Your task to perform on an android device: turn off location history Image 0: 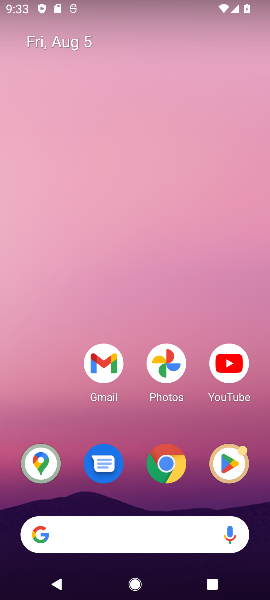
Step 0: drag from (127, 525) to (147, 54)
Your task to perform on an android device: turn off location history Image 1: 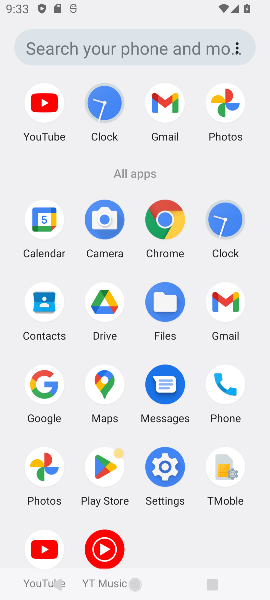
Step 1: drag from (192, 232) to (158, 23)
Your task to perform on an android device: turn off location history Image 2: 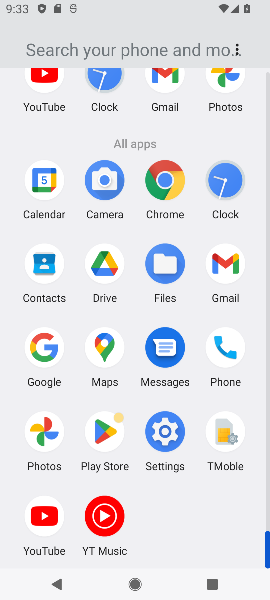
Step 2: drag from (162, 272) to (123, 6)
Your task to perform on an android device: turn off location history Image 3: 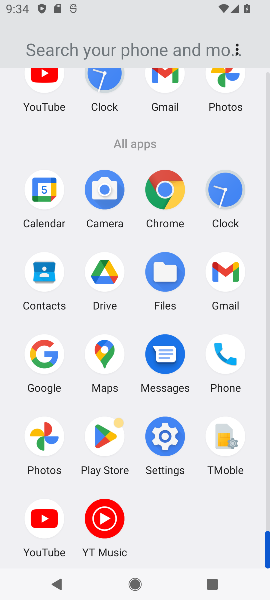
Step 3: click (164, 438)
Your task to perform on an android device: turn off location history Image 4: 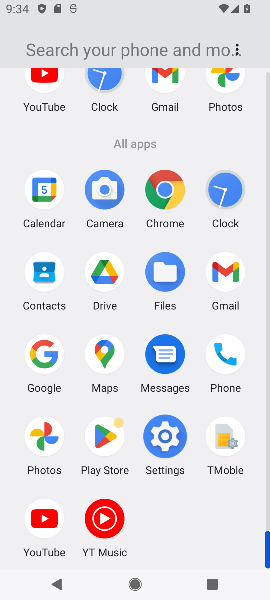
Step 4: click (164, 438)
Your task to perform on an android device: turn off location history Image 5: 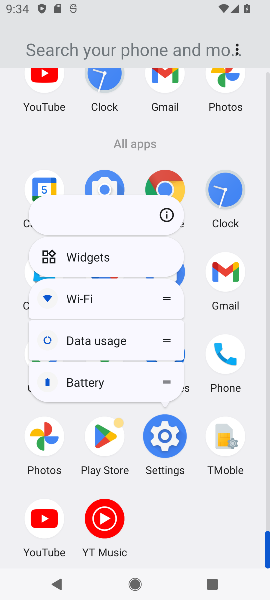
Step 5: click (164, 438)
Your task to perform on an android device: turn off location history Image 6: 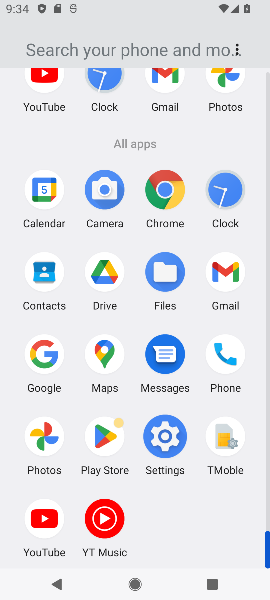
Step 6: click (167, 438)
Your task to perform on an android device: turn off location history Image 7: 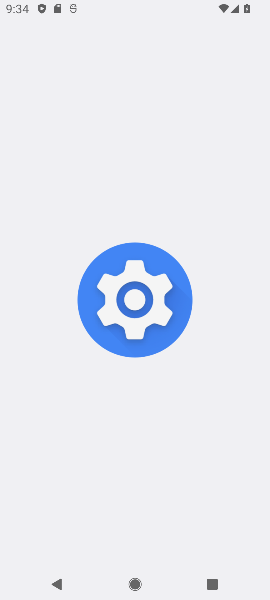
Step 7: click (169, 437)
Your task to perform on an android device: turn off location history Image 8: 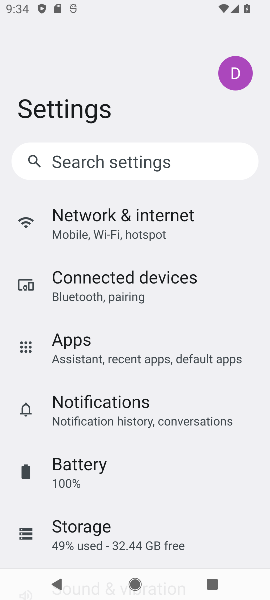
Step 8: click (111, 216)
Your task to perform on an android device: turn off location history Image 9: 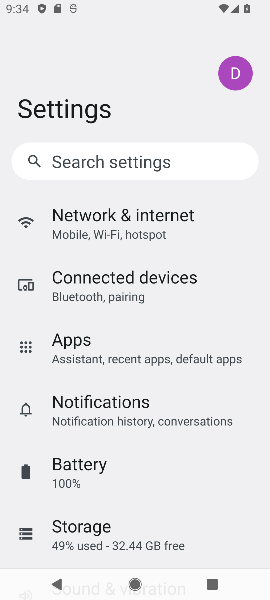
Step 9: drag from (124, 314) to (97, 220)
Your task to perform on an android device: turn off location history Image 10: 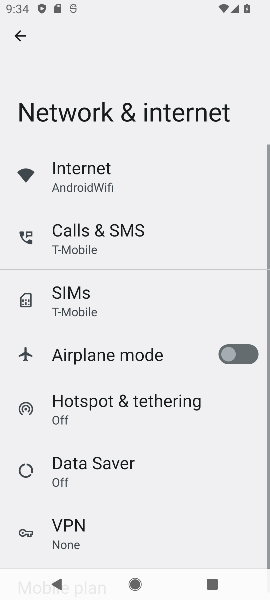
Step 10: click (19, 36)
Your task to perform on an android device: turn off location history Image 11: 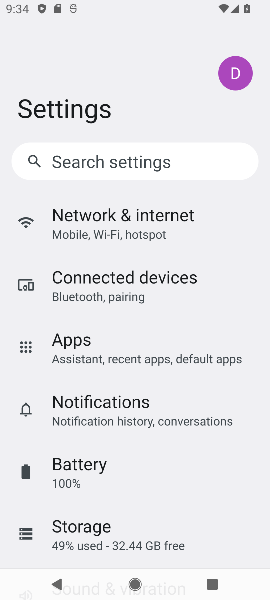
Step 11: drag from (176, 484) to (76, 117)
Your task to perform on an android device: turn off location history Image 12: 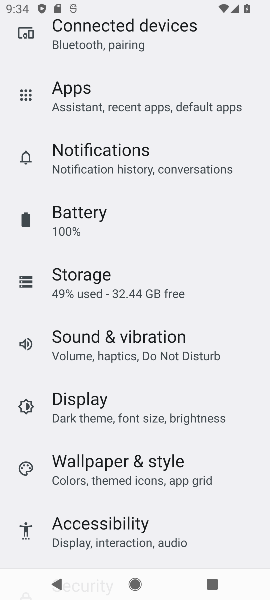
Step 12: drag from (118, 436) to (60, 140)
Your task to perform on an android device: turn off location history Image 13: 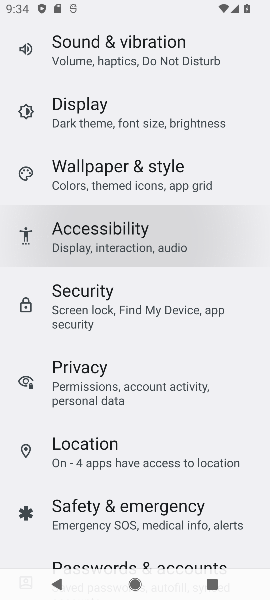
Step 13: drag from (124, 482) to (84, 259)
Your task to perform on an android device: turn off location history Image 14: 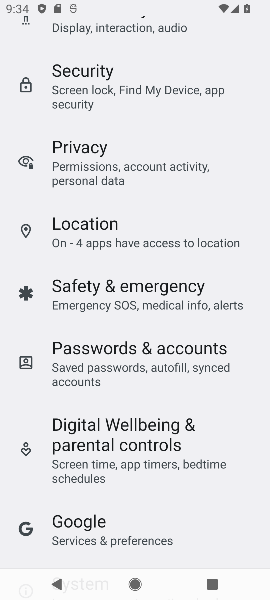
Step 14: click (81, 233)
Your task to perform on an android device: turn off location history Image 15: 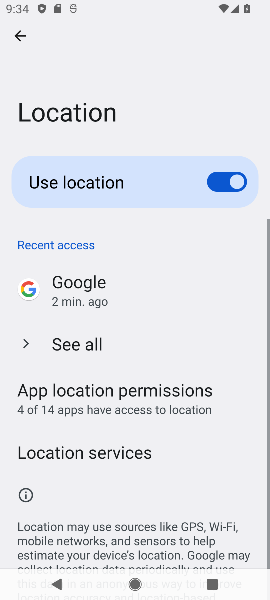
Step 15: click (81, 233)
Your task to perform on an android device: turn off location history Image 16: 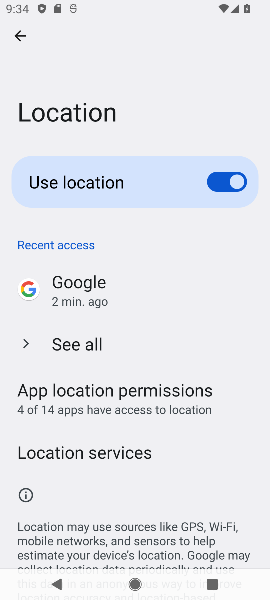
Step 16: click (89, 447)
Your task to perform on an android device: turn off location history Image 17: 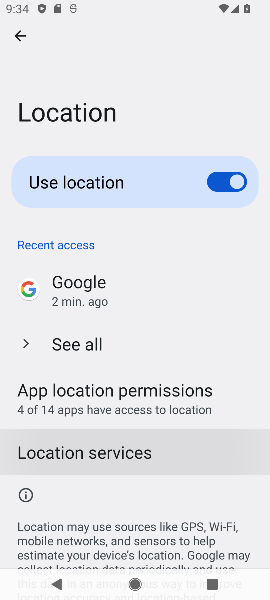
Step 17: click (89, 447)
Your task to perform on an android device: turn off location history Image 18: 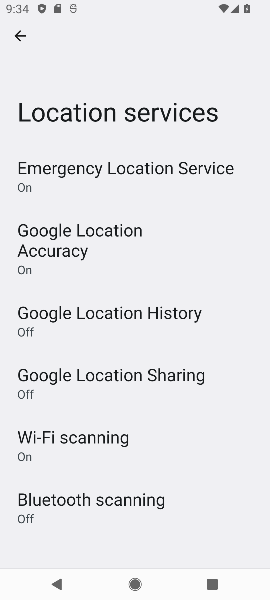
Step 18: click (105, 317)
Your task to perform on an android device: turn off location history Image 19: 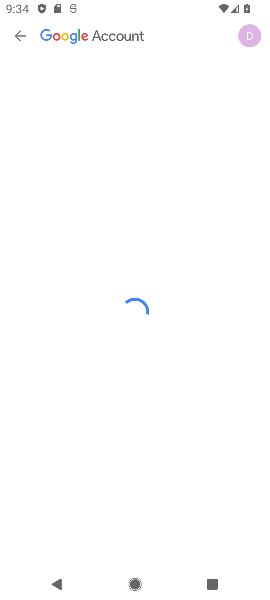
Step 19: click (16, 26)
Your task to perform on an android device: turn off location history Image 20: 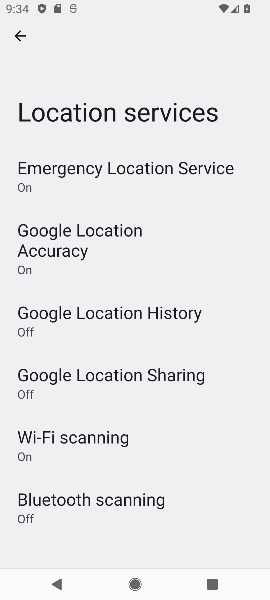
Step 20: click (98, 307)
Your task to perform on an android device: turn off location history Image 21: 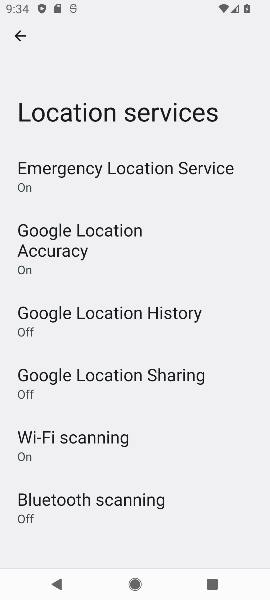
Step 21: click (97, 304)
Your task to perform on an android device: turn off location history Image 22: 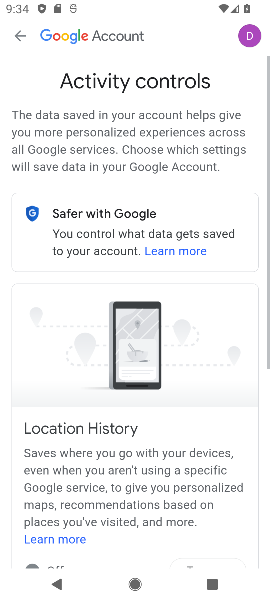
Step 22: task complete